Your task to perform on an android device: Go to Google Image 0: 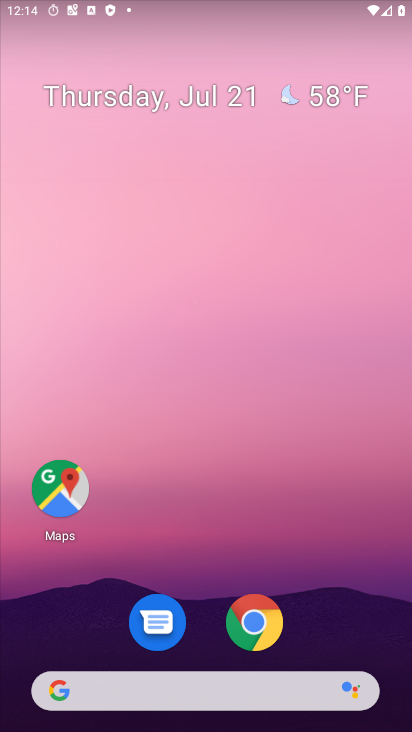
Step 0: click (82, 683)
Your task to perform on an android device: Go to Google Image 1: 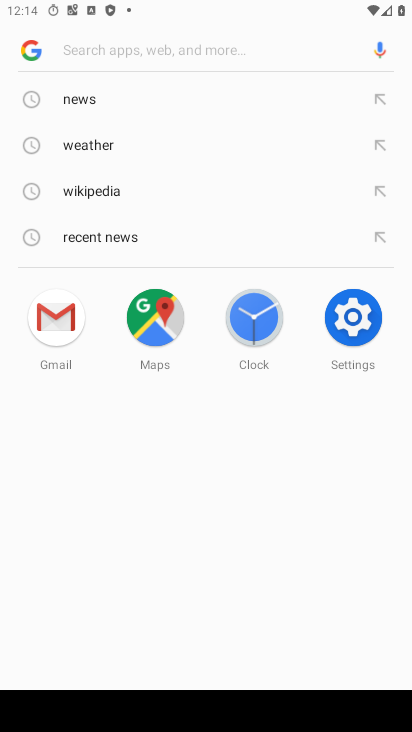
Step 1: task complete